Your task to perform on an android device: Go to internet settings Image 0: 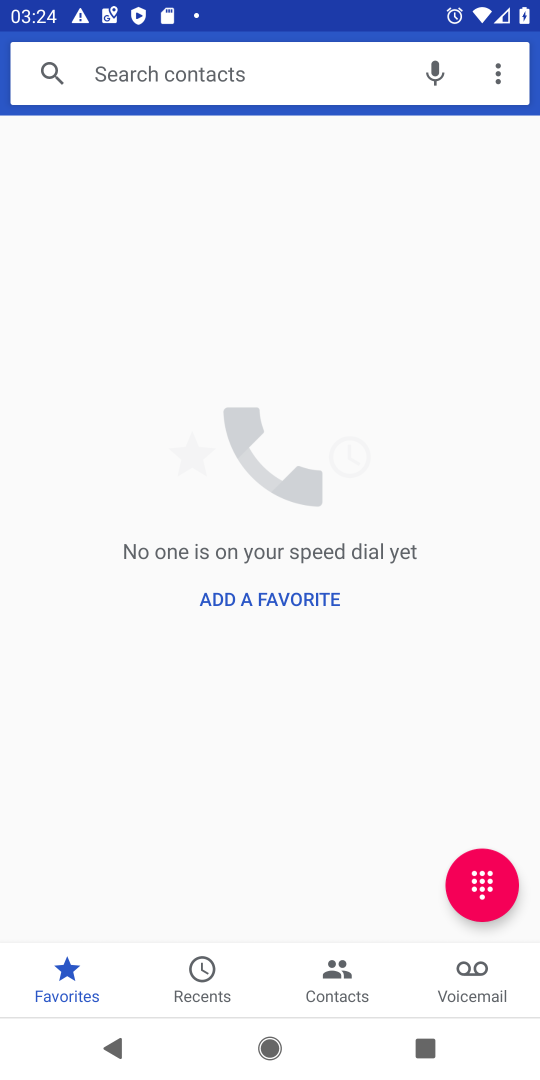
Step 0: press home button
Your task to perform on an android device: Go to internet settings Image 1: 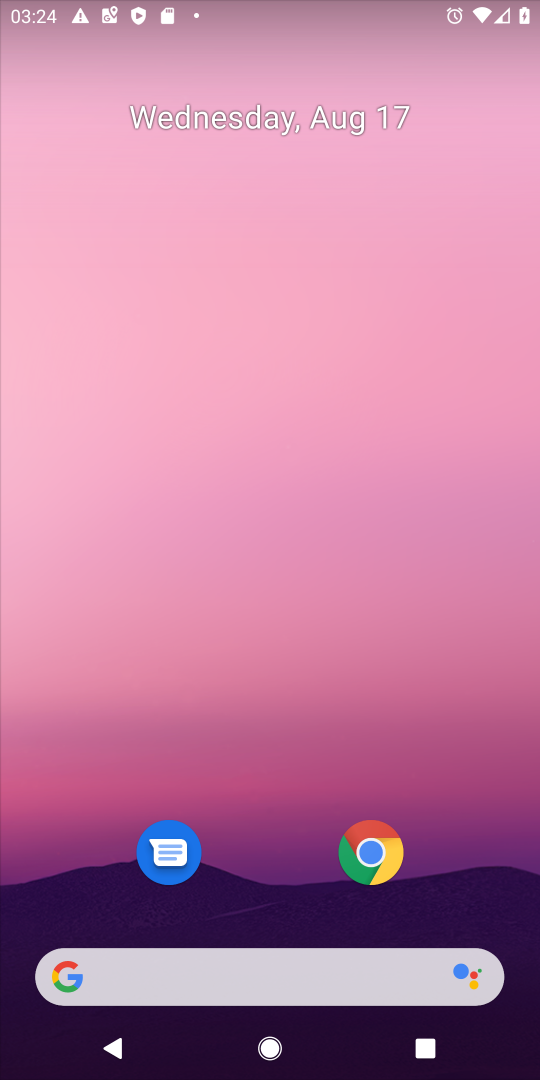
Step 1: drag from (306, 707) to (358, 147)
Your task to perform on an android device: Go to internet settings Image 2: 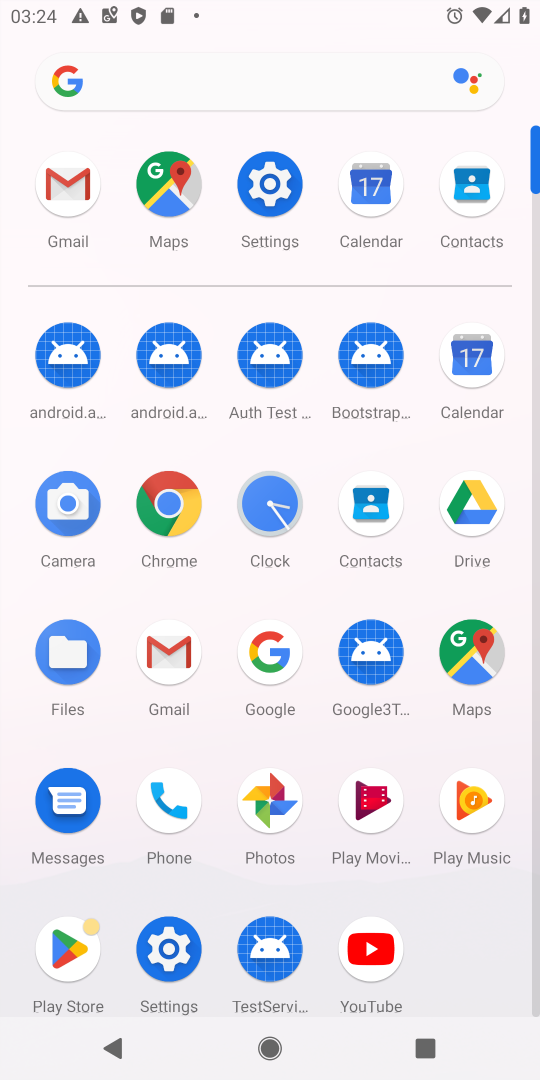
Step 2: click (158, 964)
Your task to perform on an android device: Go to internet settings Image 3: 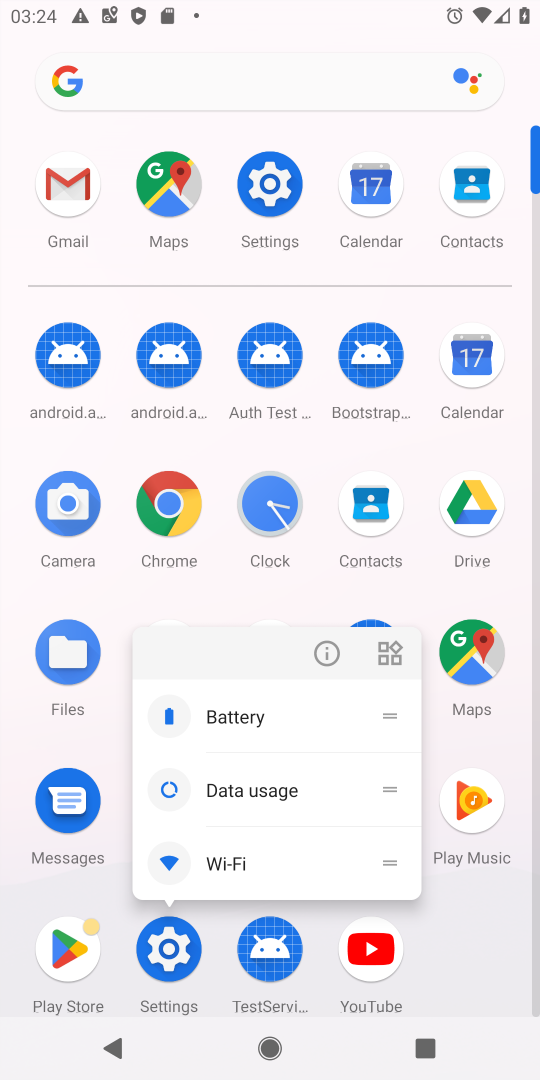
Step 3: click (166, 945)
Your task to perform on an android device: Go to internet settings Image 4: 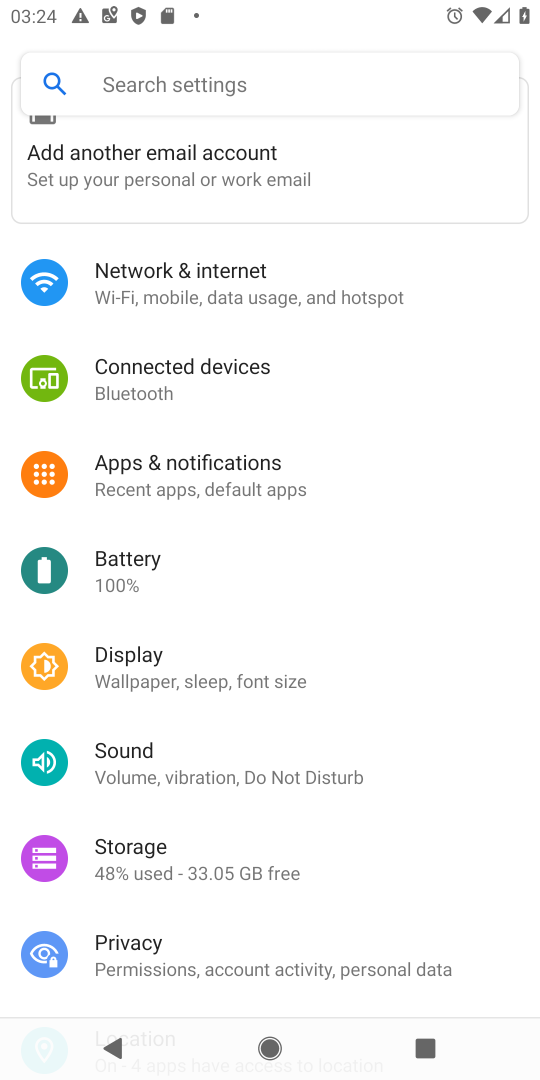
Step 4: click (179, 290)
Your task to perform on an android device: Go to internet settings Image 5: 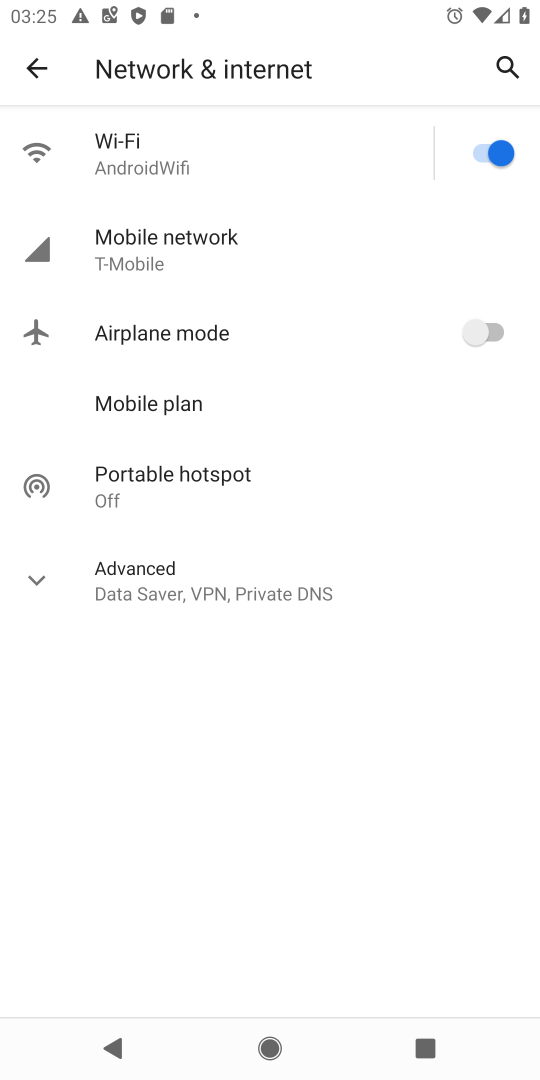
Step 5: click (288, 590)
Your task to perform on an android device: Go to internet settings Image 6: 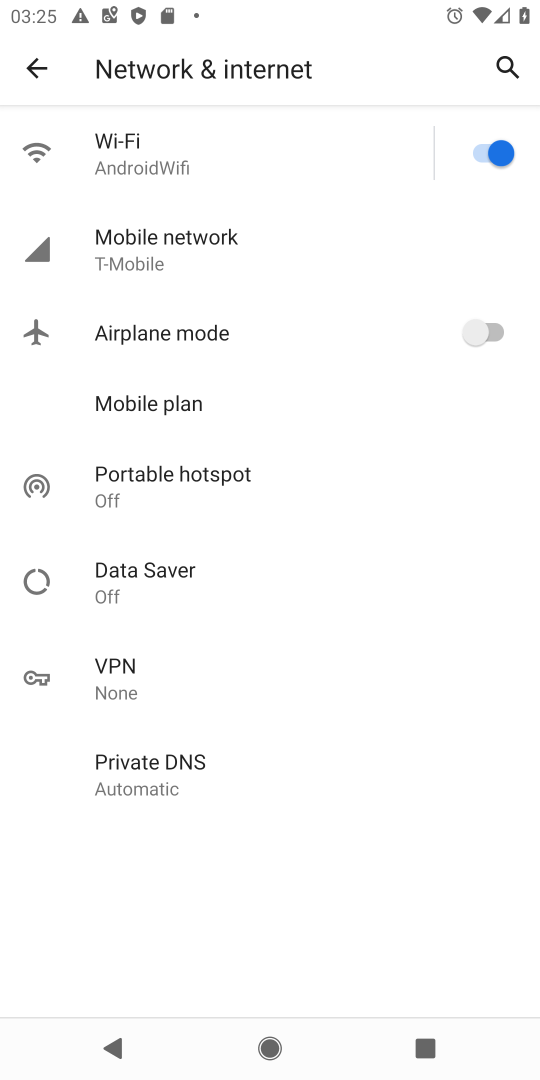
Step 6: task complete